Your task to perform on an android device: open chrome privacy settings Image 0: 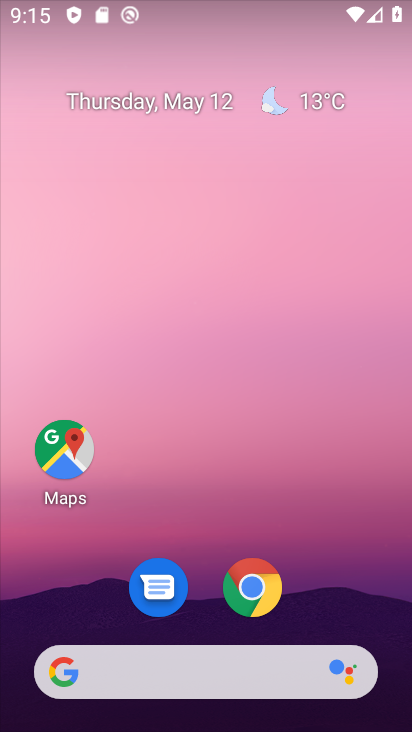
Step 0: drag from (348, 523) to (257, 0)
Your task to perform on an android device: open chrome privacy settings Image 1: 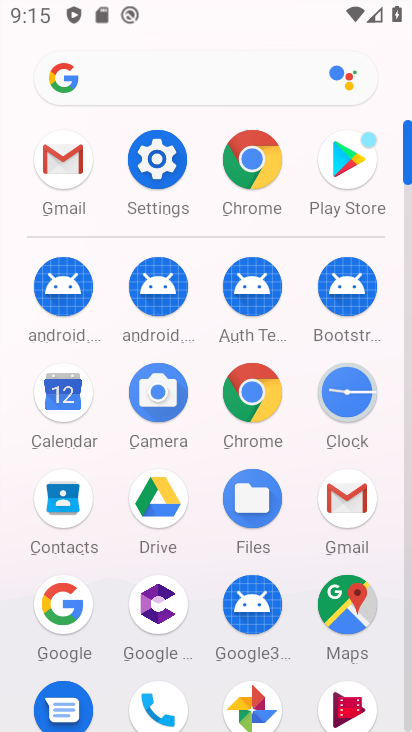
Step 1: click (130, 148)
Your task to perform on an android device: open chrome privacy settings Image 2: 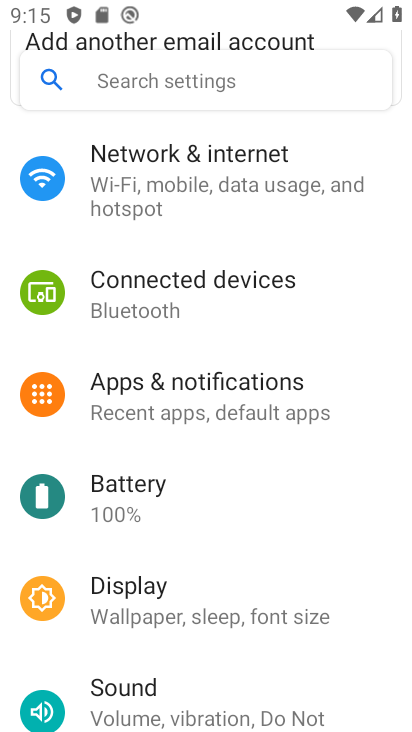
Step 2: drag from (261, 525) to (247, 127)
Your task to perform on an android device: open chrome privacy settings Image 3: 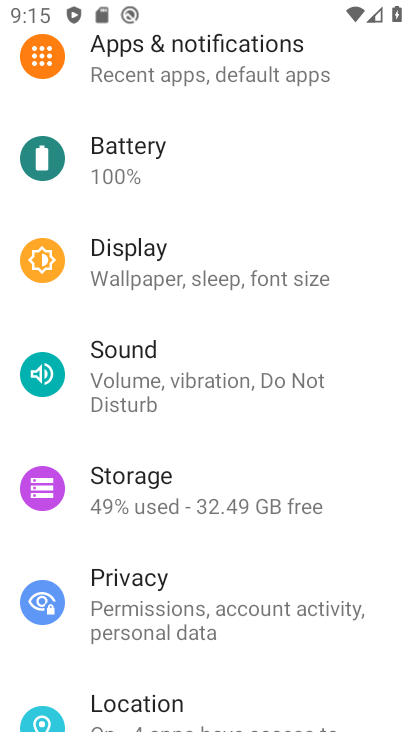
Step 3: press home button
Your task to perform on an android device: open chrome privacy settings Image 4: 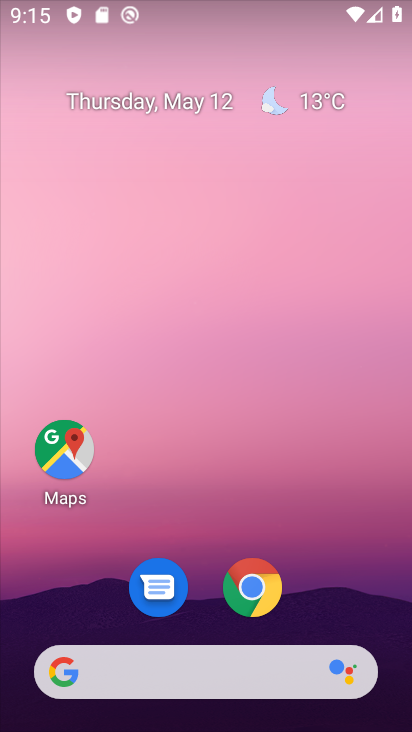
Step 4: drag from (346, 591) to (296, 49)
Your task to perform on an android device: open chrome privacy settings Image 5: 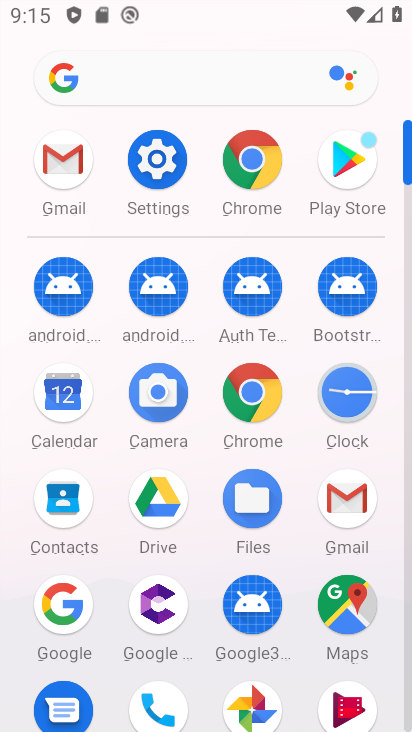
Step 5: click (262, 150)
Your task to perform on an android device: open chrome privacy settings Image 6: 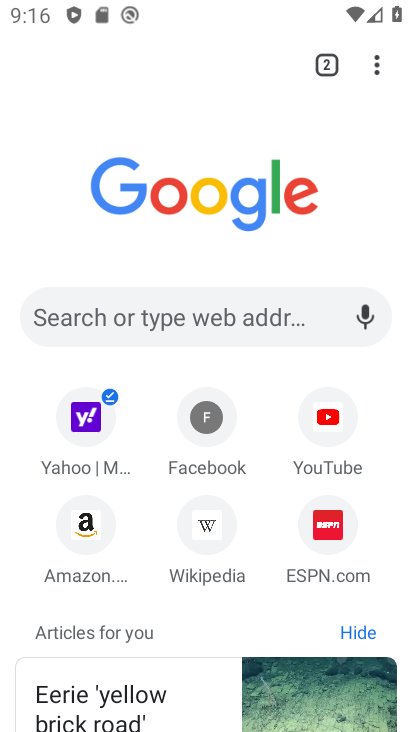
Step 6: drag from (384, 70) to (164, 560)
Your task to perform on an android device: open chrome privacy settings Image 7: 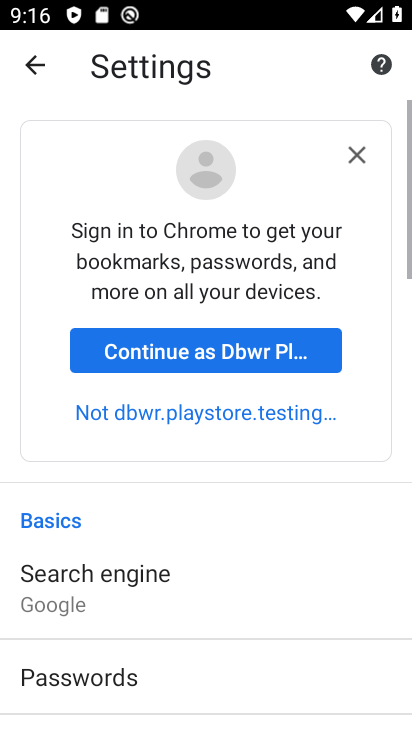
Step 7: drag from (190, 654) to (272, 260)
Your task to perform on an android device: open chrome privacy settings Image 8: 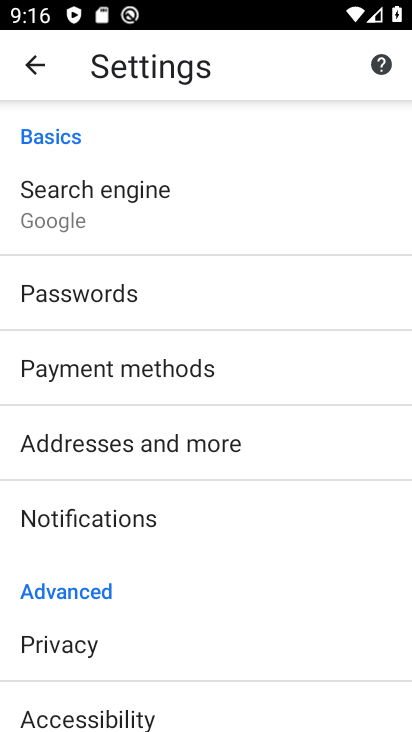
Step 8: drag from (284, 597) to (309, 223)
Your task to perform on an android device: open chrome privacy settings Image 9: 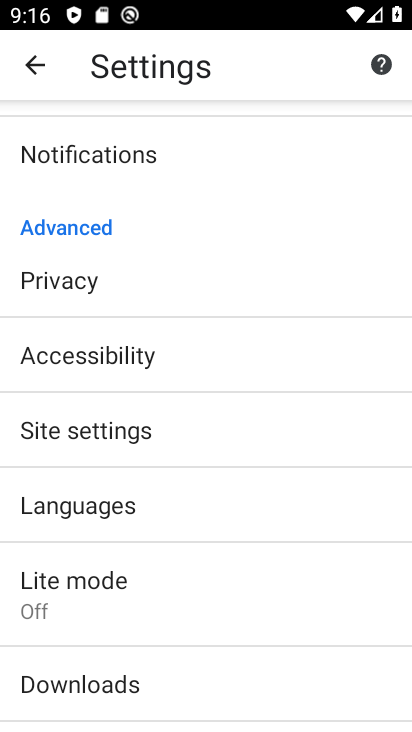
Step 9: click (178, 294)
Your task to perform on an android device: open chrome privacy settings Image 10: 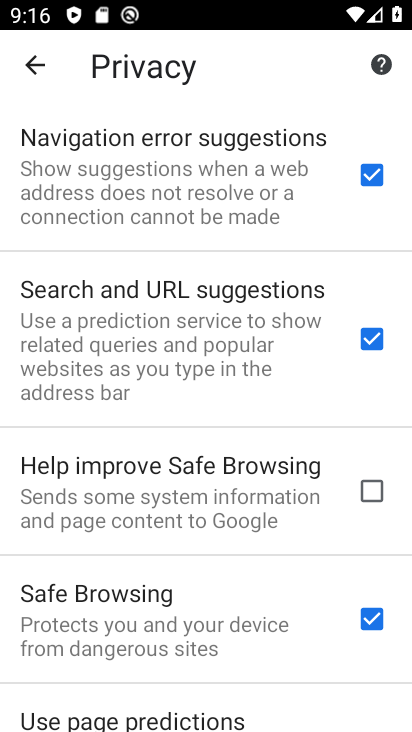
Step 10: task complete